Your task to perform on an android device: Open accessibility settings Image 0: 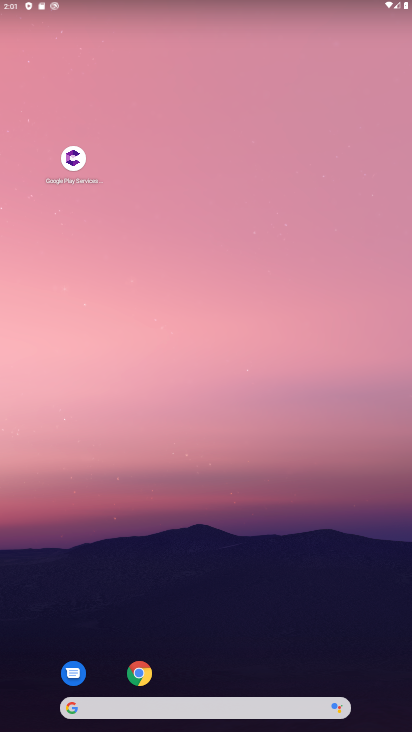
Step 0: drag from (258, 554) to (155, 56)
Your task to perform on an android device: Open accessibility settings Image 1: 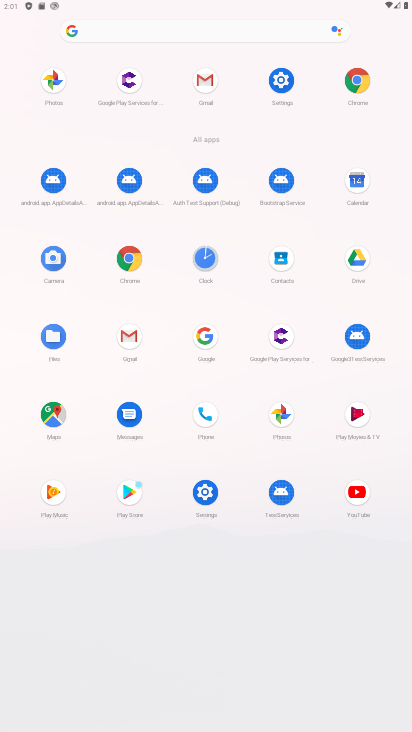
Step 1: click (282, 79)
Your task to perform on an android device: Open accessibility settings Image 2: 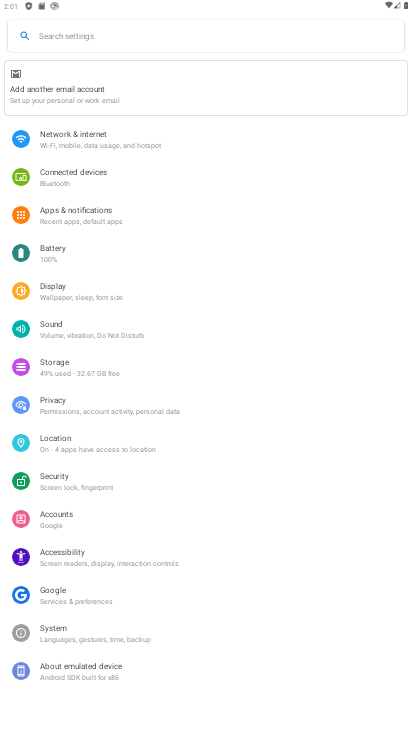
Step 2: click (59, 555)
Your task to perform on an android device: Open accessibility settings Image 3: 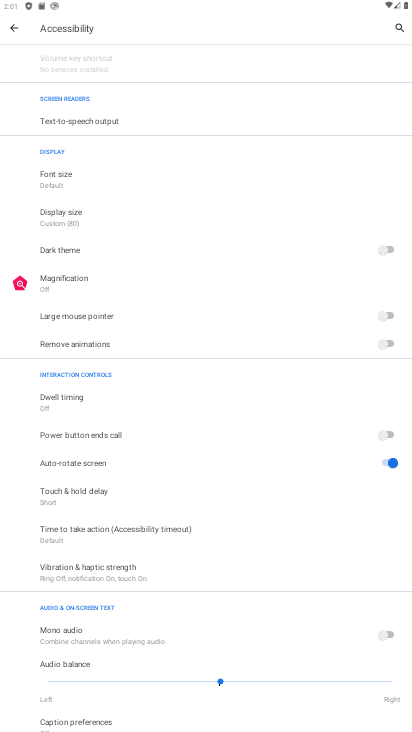
Step 3: task complete